Your task to perform on an android device: turn on location history Image 0: 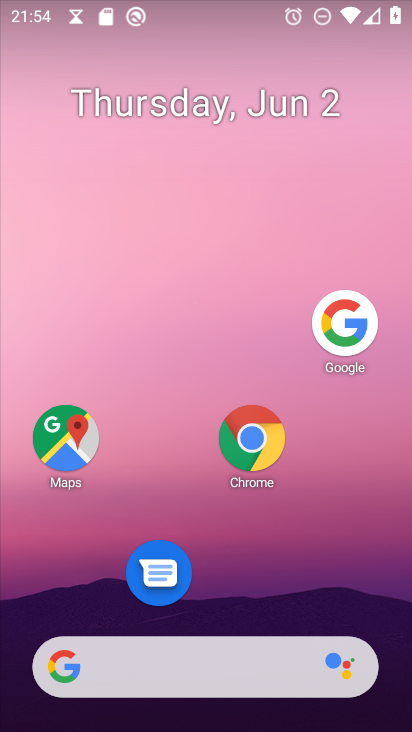
Step 0: press home button
Your task to perform on an android device: turn on location history Image 1: 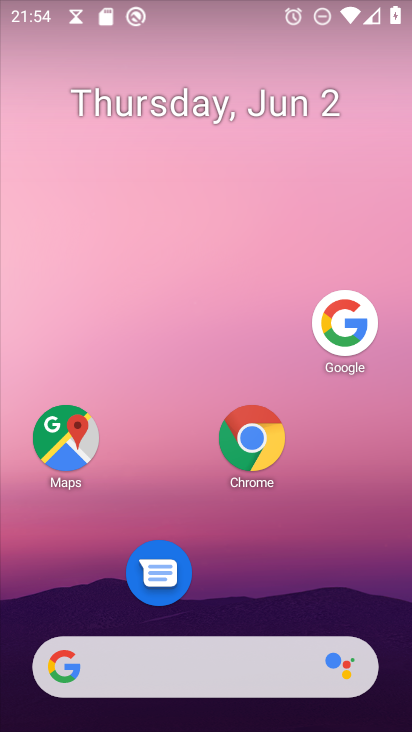
Step 1: click (68, 448)
Your task to perform on an android device: turn on location history Image 2: 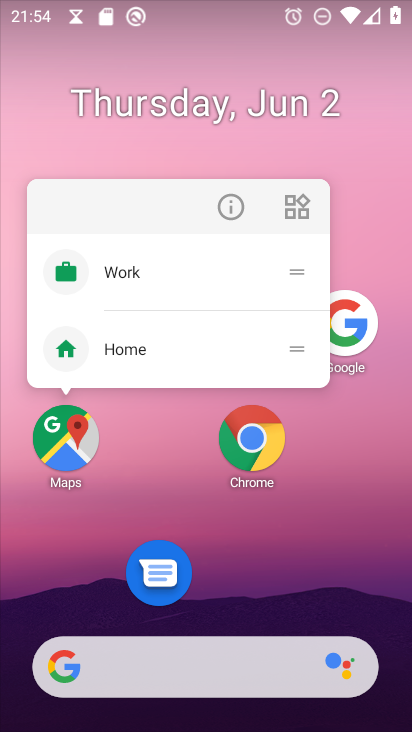
Step 2: click (62, 453)
Your task to perform on an android device: turn on location history Image 3: 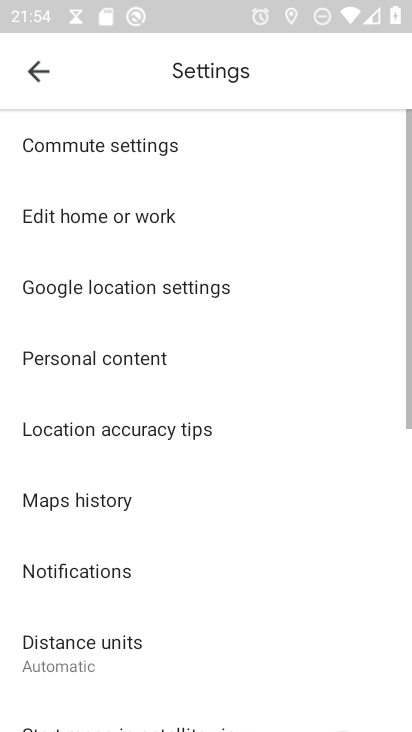
Step 3: click (43, 71)
Your task to perform on an android device: turn on location history Image 4: 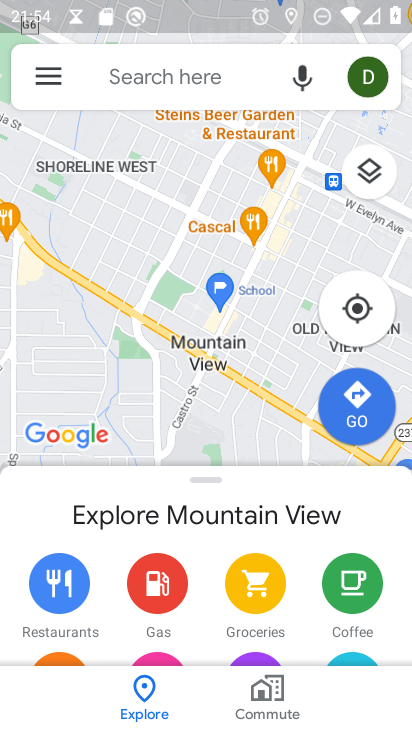
Step 4: click (52, 79)
Your task to perform on an android device: turn on location history Image 5: 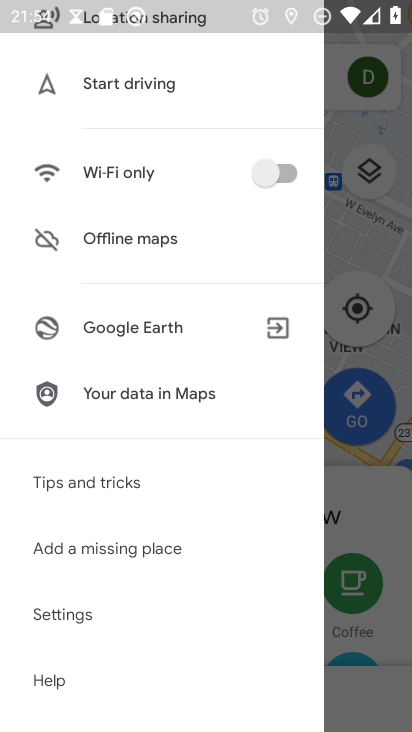
Step 5: drag from (217, 244) to (136, 666)
Your task to perform on an android device: turn on location history Image 6: 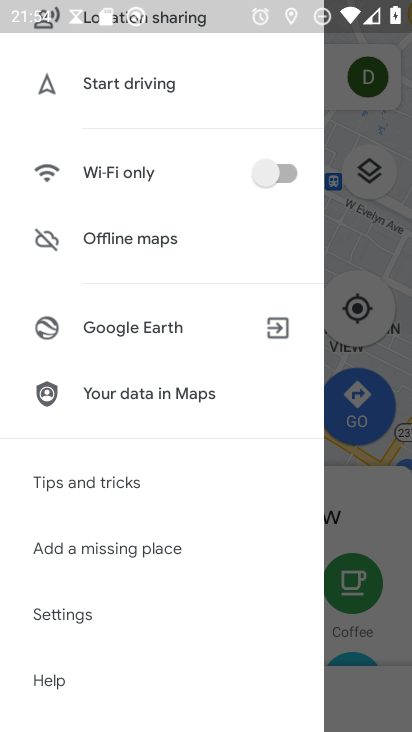
Step 6: drag from (137, 71) to (157, 608)
Your task to perform on an android device: turn on location history Image 7: 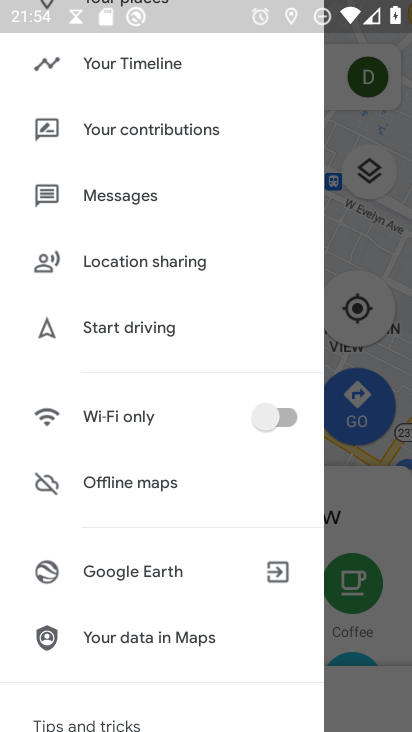
Step 7: click (156, 62)
Your task to perform on an android device: turn on location history Image 8: 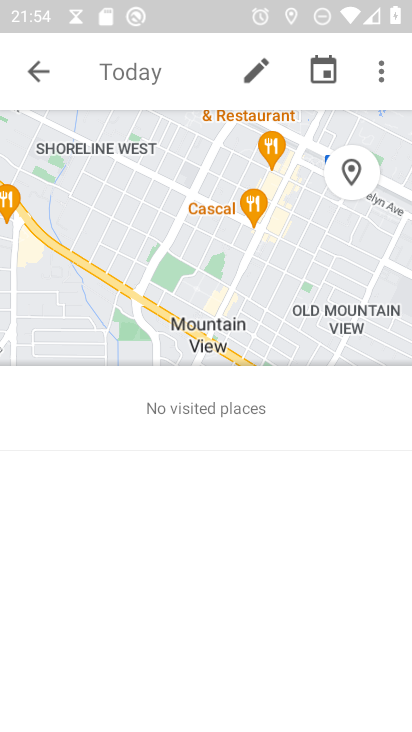
Step 8: click (381, 74)
Your task to perform on an android device: turn on location history Image 9: 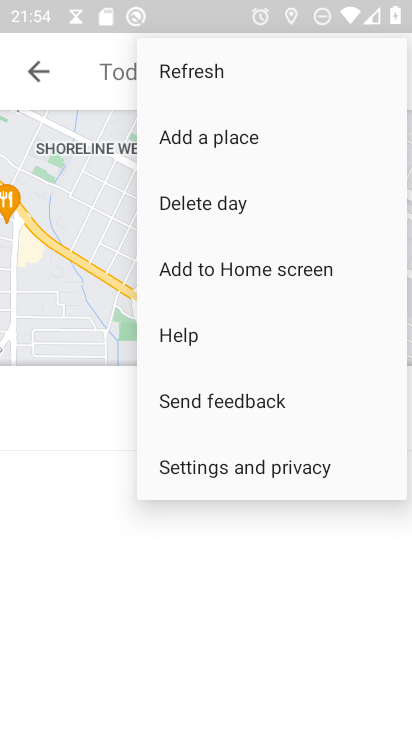
Step 9: click (204, 472)
Your task to perform on an android device: turn on location history Image 10: 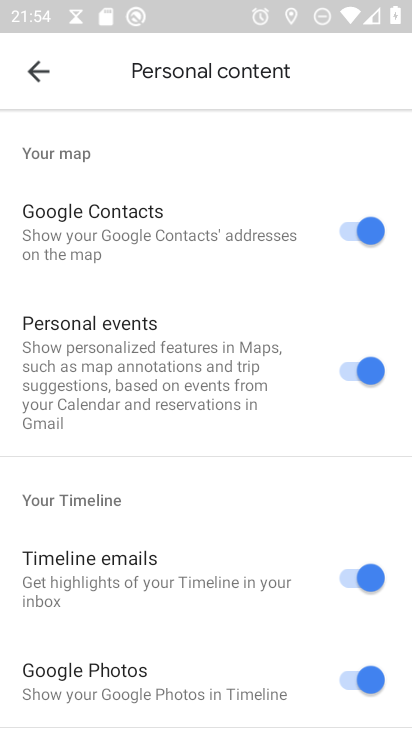
Step 10: drag from (154, 653) to (297, 36)
Your task to perform on an android device: turn on location history Image 11: 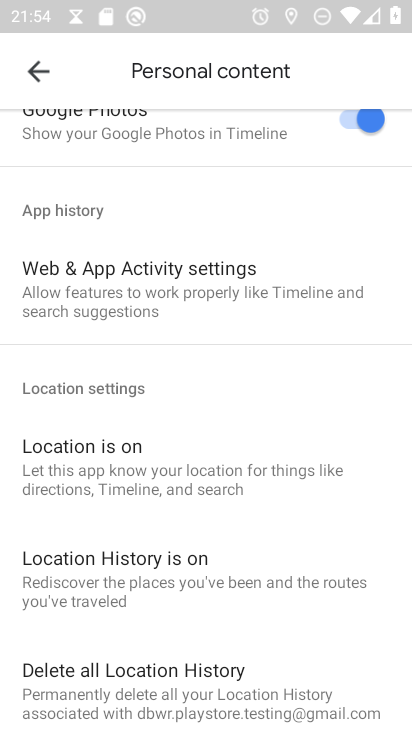
Step 11: click (130, 566)
Your task to perform on an android device: turn on location history Image 12: 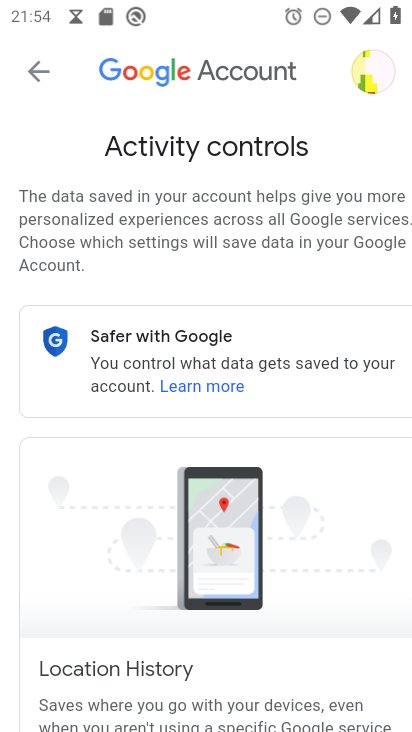
Step 12: click (157, 575)
Your task to perform on an android device: turn on location history Image 13: 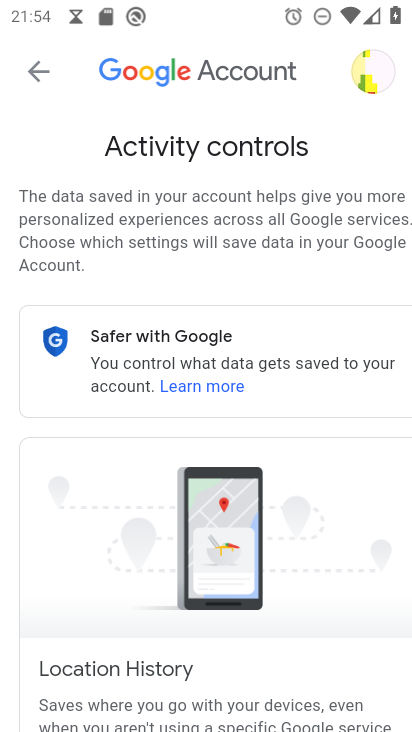
Step 13: task complete